Your task to perform on an android device: turn vacation reply on in the gmail app Image 0: 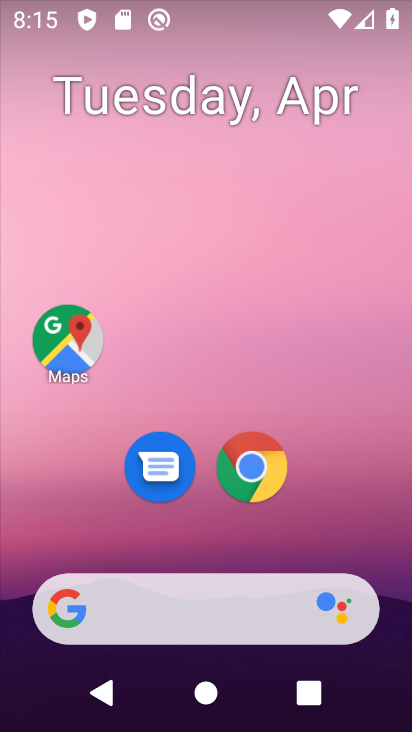
Step 0: drag from (385, 522) to (401, 5)
Your task to perform on an android device: turn vacation reply on in the gmail app Image 1: 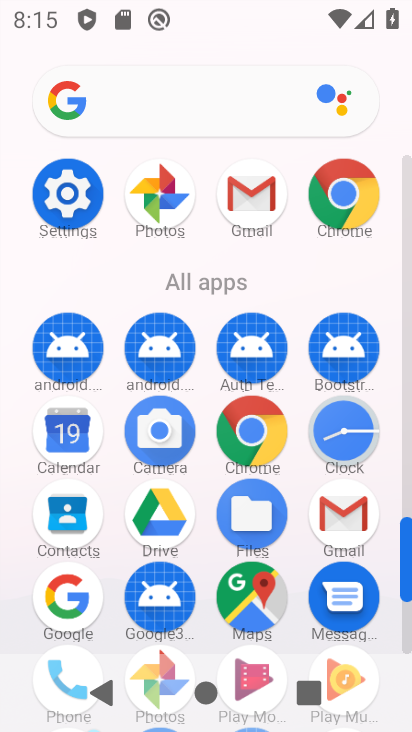
Step 1: click (257, 190)
Your task to perform on an android device: turn vacation reply on in the gmail app Image 2: 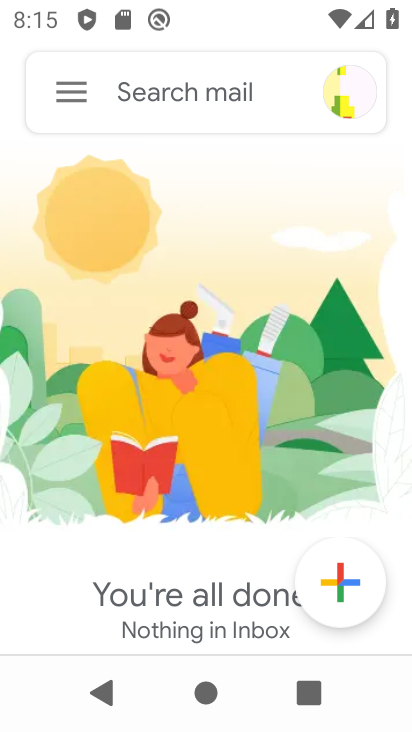
Step 2: click (56, 91)
Your task to perform on an android device: turn vacation reply on in the gmail app Image 3: 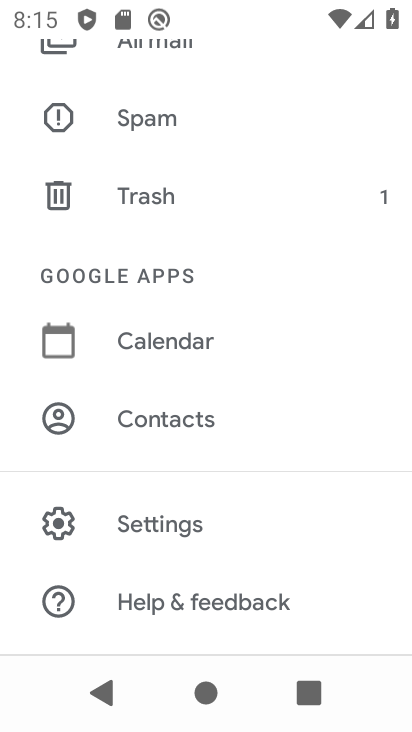
Step 3: click (178, 524)
Your task to perform on an android device: turn vacation reply on in the gmail app Image 4: 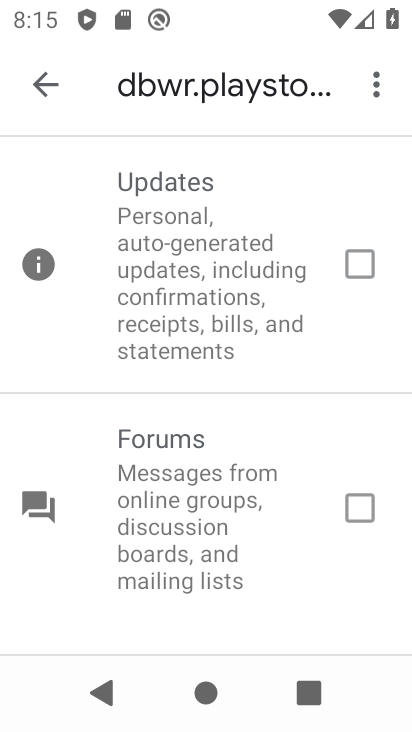
Step 4: click (33, 83)
Your task to perform on an android device: turn vacation reply on in the gmail app Image 5: 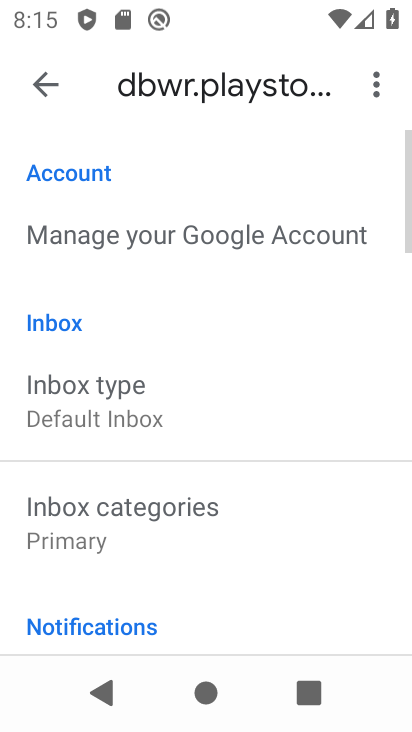
Step 5: drag from (264, 464) to (245, 130)
Your task to perform on an android device: turn vacation reply on in the gmail app Image 6: 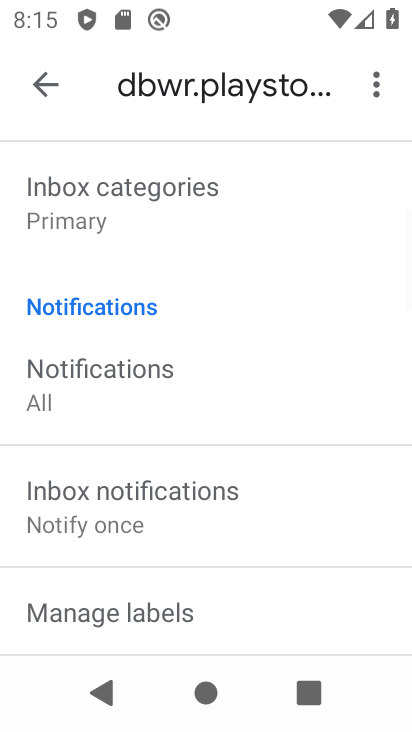
Step 6: drag from (236, 514) to (252, 133)
Your task to perform on an android device: turn vacation reply on in the gmail app Image 7: 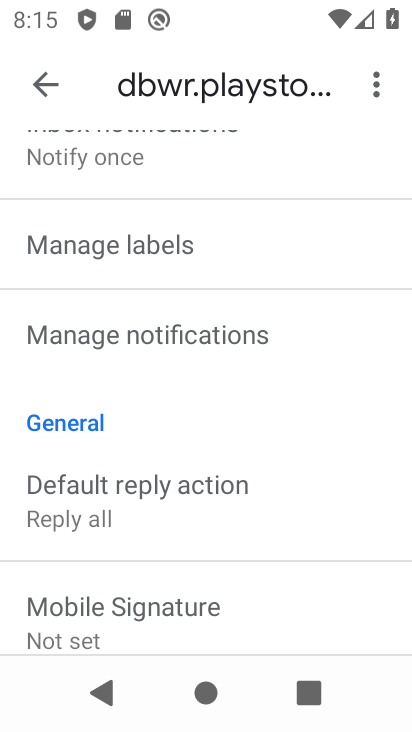
Step 7: drag from (239, 502) to (230, 116)
Your task to perform on an android device: turn vacation reply on in the gmail app Image 8: 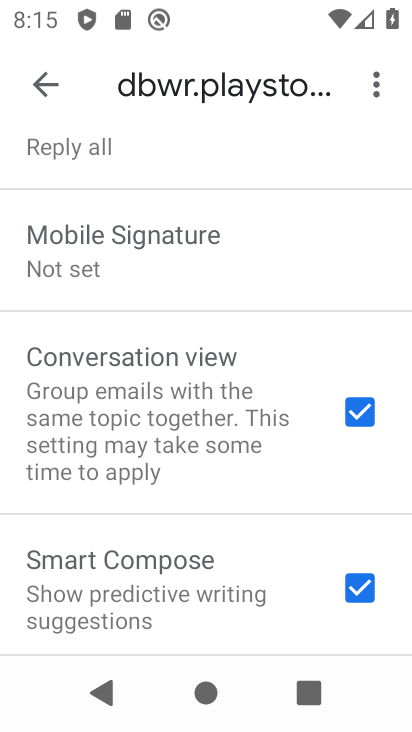
Step 8: drag from (149, 376) to (149, 99)
Your task to perform on an android device: turn vacation reply on in the gmail app Image 9: 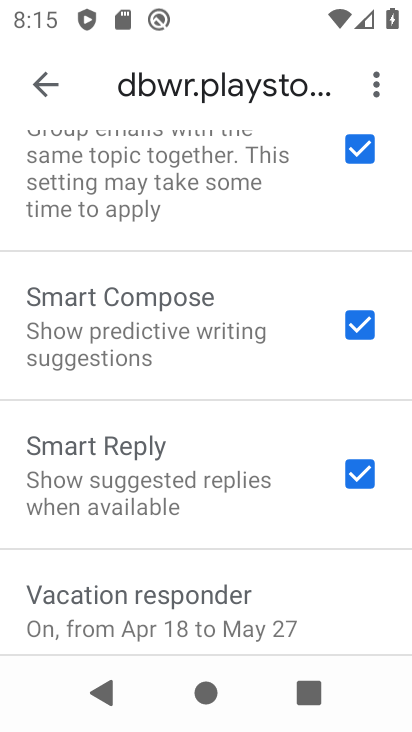
Step 9: drag from (132, 487) to (139, 253)
Your task to perform on an android device: turn vacation reply on in the gmail app Image 10: 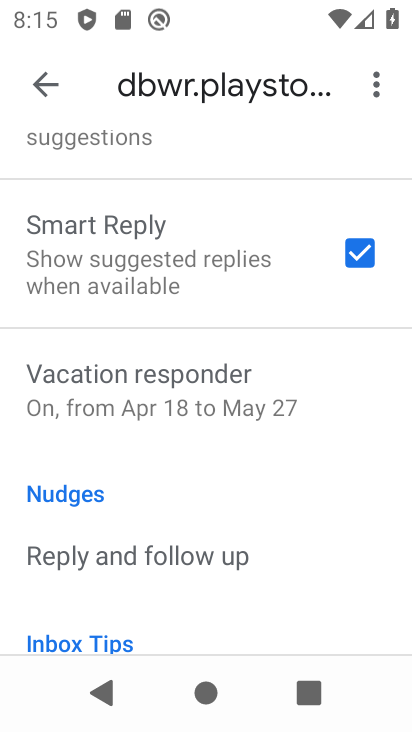
Step 10: click (114, 408)
Your task to perform on an android device: turn vacation reply on in the gmail app Image 11: 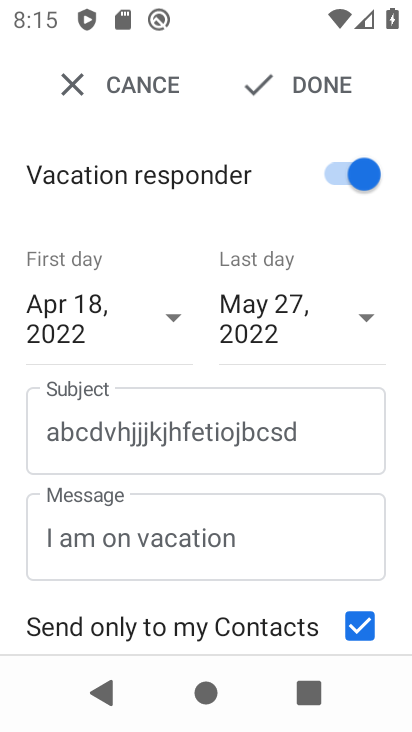
Step 11: click (334, 82)
Your task to perform on an android device: turn vacation reply on in the gmail app Image 12: 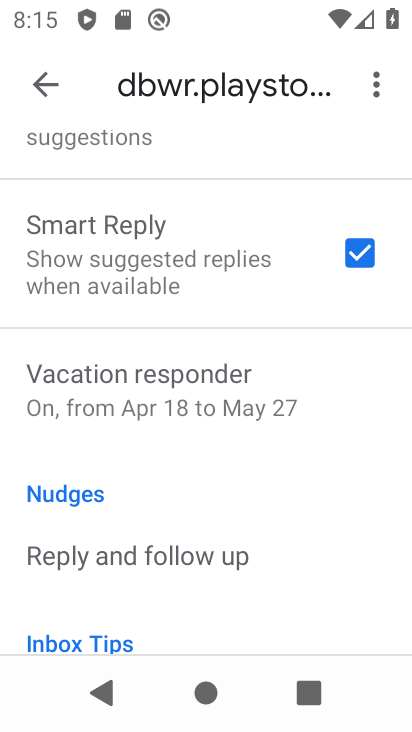
Step 12: task complete